Your task to perform on an android device: turn on airplane mode Image 0: 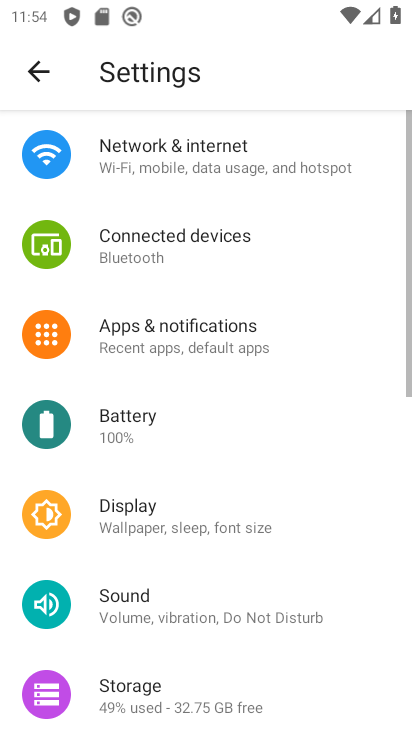
Step 0: click (137, 159)
Your task to perform on an android device: turn on airplane mode Image 1: 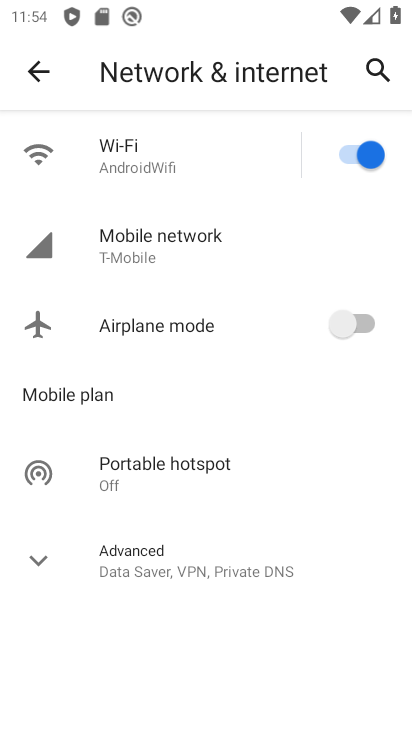
Step 1: click (357, 327)
Your task to perform on an android device: turn on airplane mode Image 2: 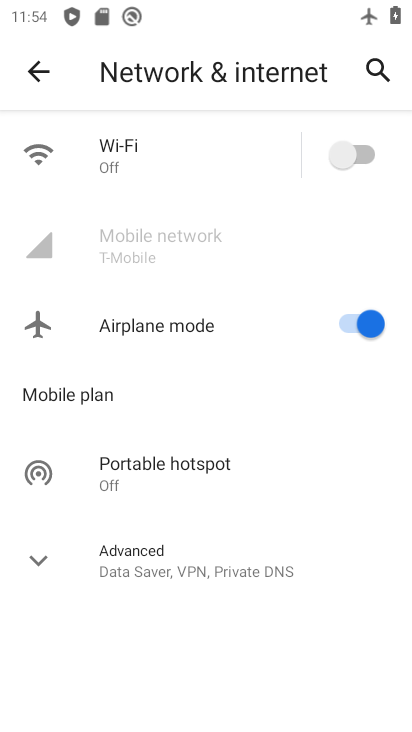
Step 2: task complete